Your task to perform on an android device: check data usage Image 0: 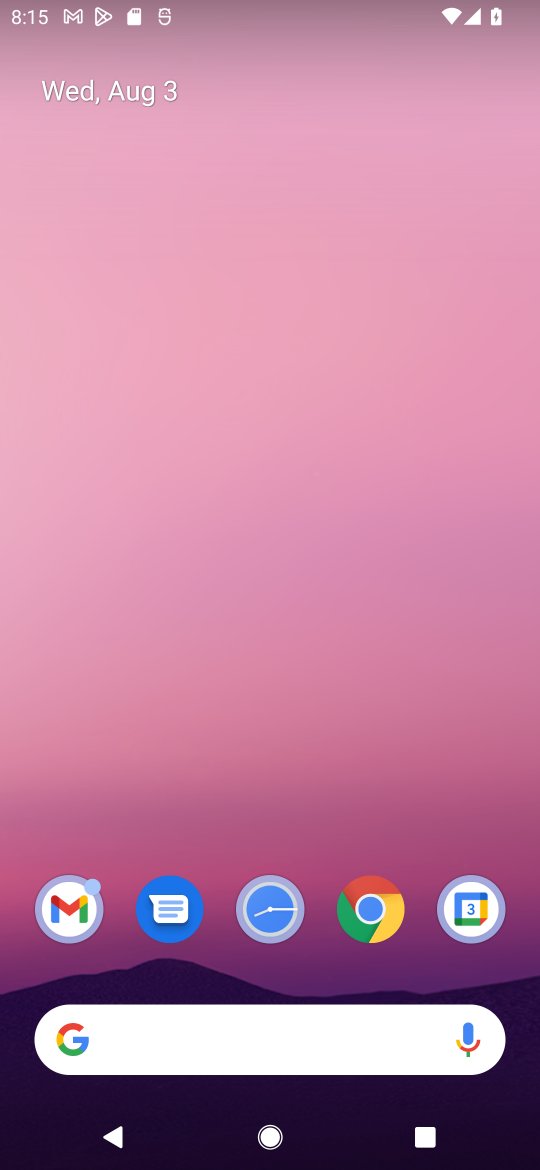
Step 0: press home button
Your task to perform on an android device: check data usage Image 1: 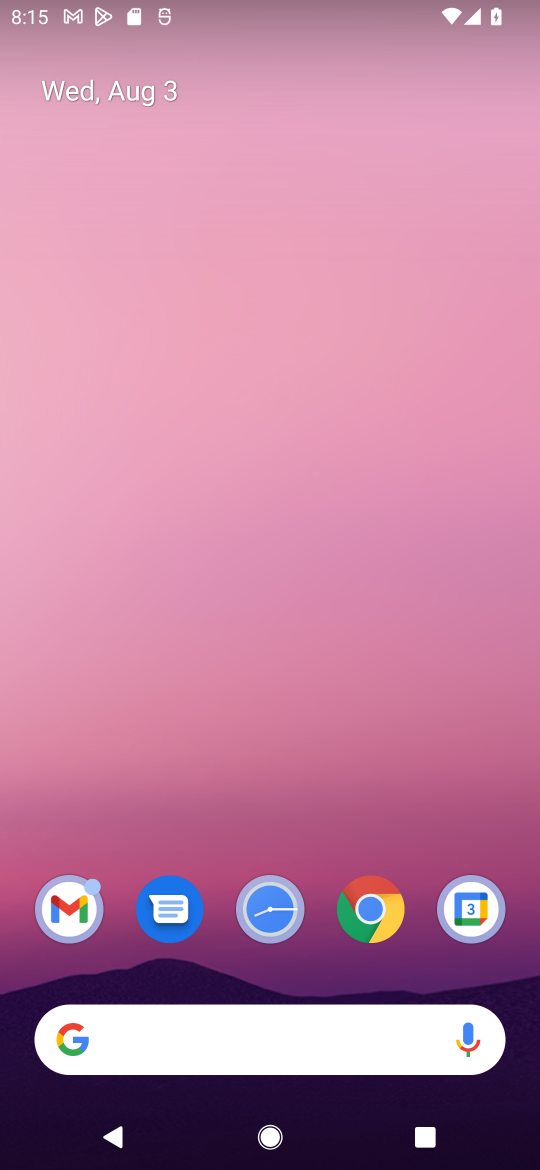
Step 1: drag from (334, 835) to (377, 275)
Your task to perform on an android device: check data usage Image 2: 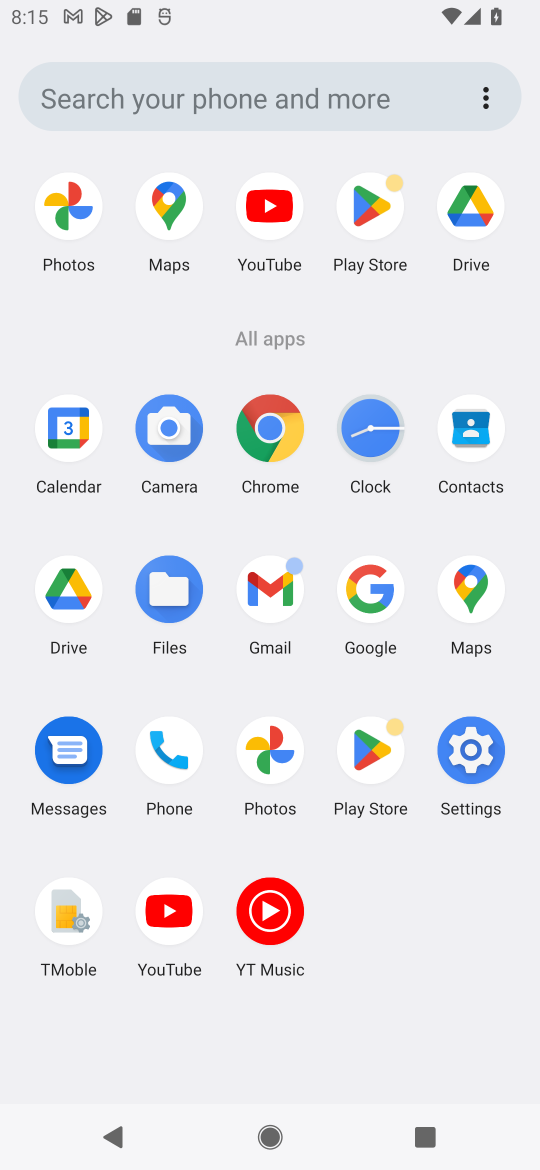
Step 2: click (477, 761)
Your task to perform on an android device: check data usage Image 3: 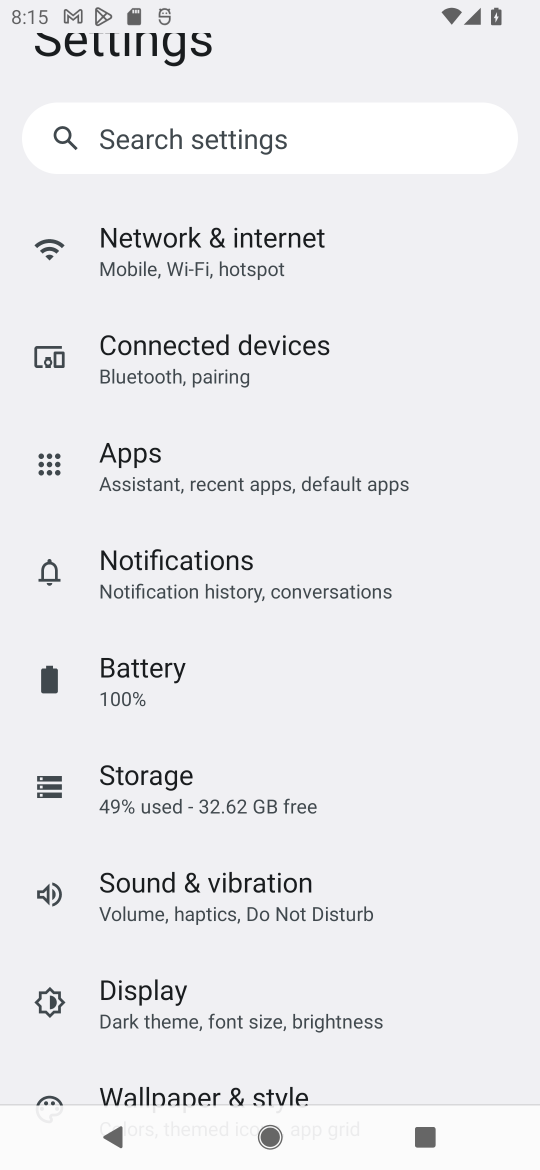
Step 3: drag from (445, 939) to (464, 815)
Your task to perform on an android device: check data usage Image 4: 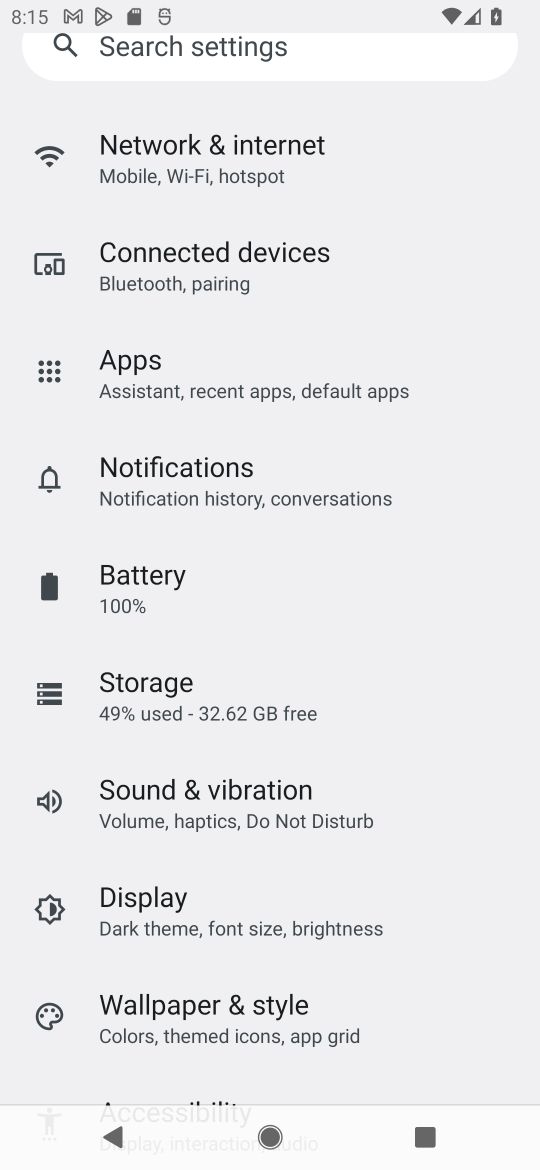
Step 4: drag from (475, 985) to (466, 838)
Your task to perform on an android device: check data usage Image 5: 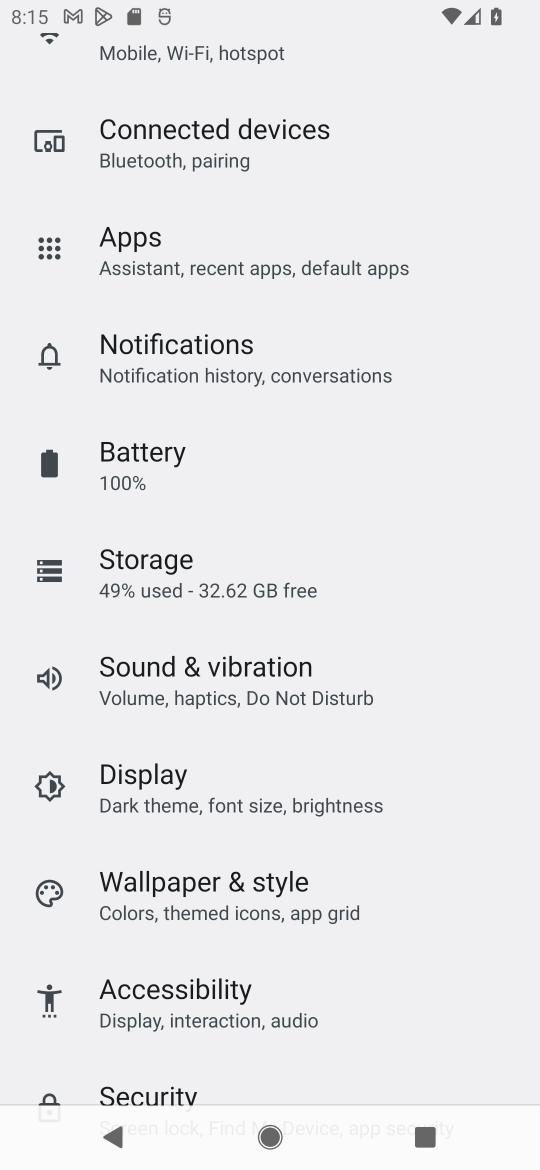
Step 5: drag from (460, 1014) to (460, 827)
Your task to perform on an android device: check data usage Image 6: 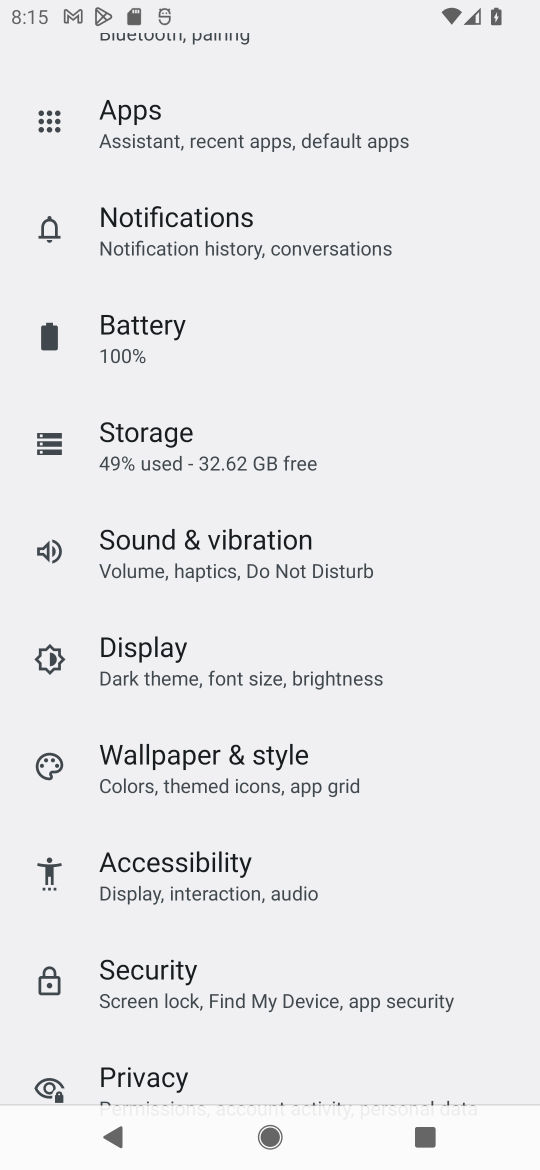
Step 6: drag from (476, 1059) to (473, 868)
Your task to perform on an android device: check data usage Image 7: 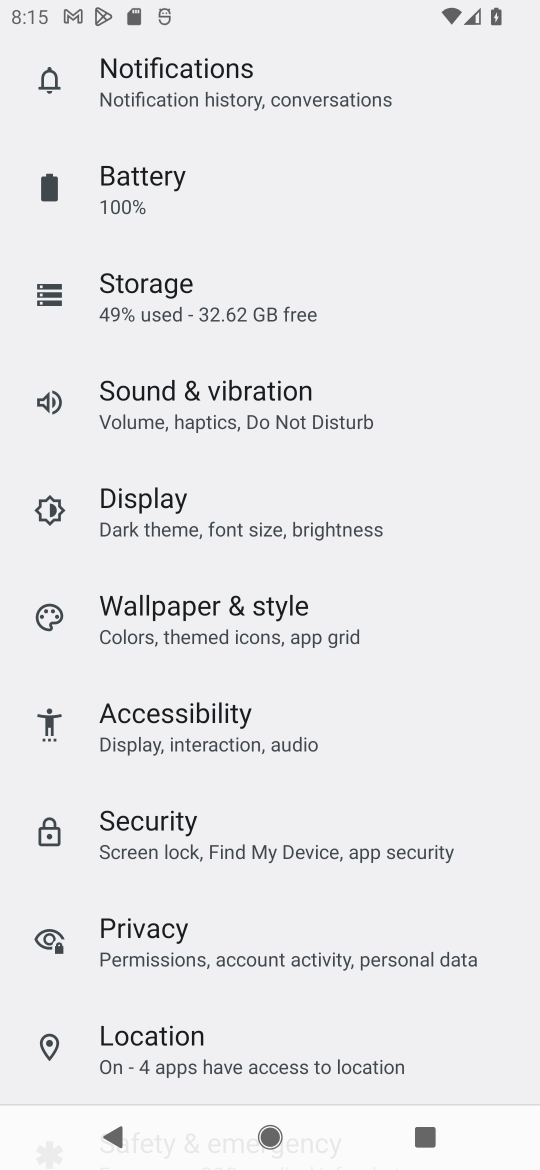
Step 7: drag from (443, 1003) to (458, 755)
Your task to perform on an android device: check data usage Image 8: 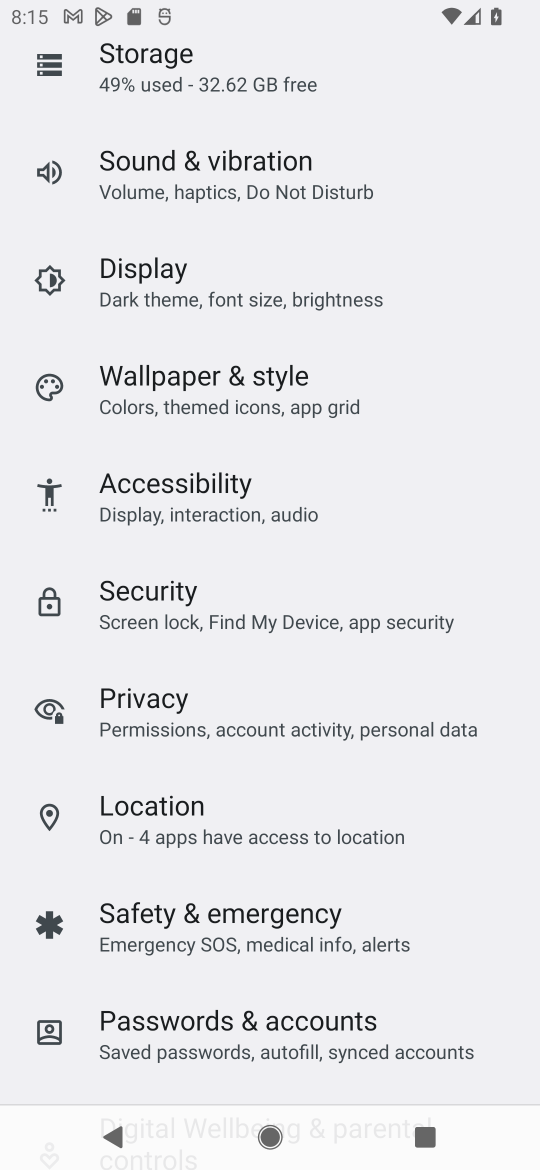
Step 8: drag from (472, 948) to (476, 724)
Your task to perform on an android device: check data usage Image 9: 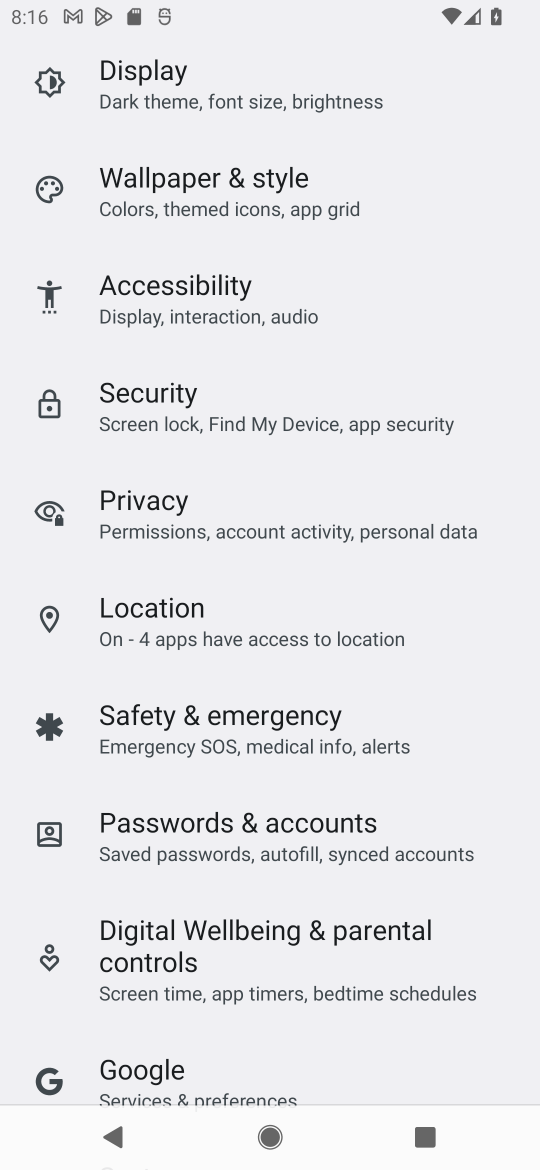
Step 9: drag from (485, 998) to (494, 770)
Your task to perform on an android device: check data usage Image 10: 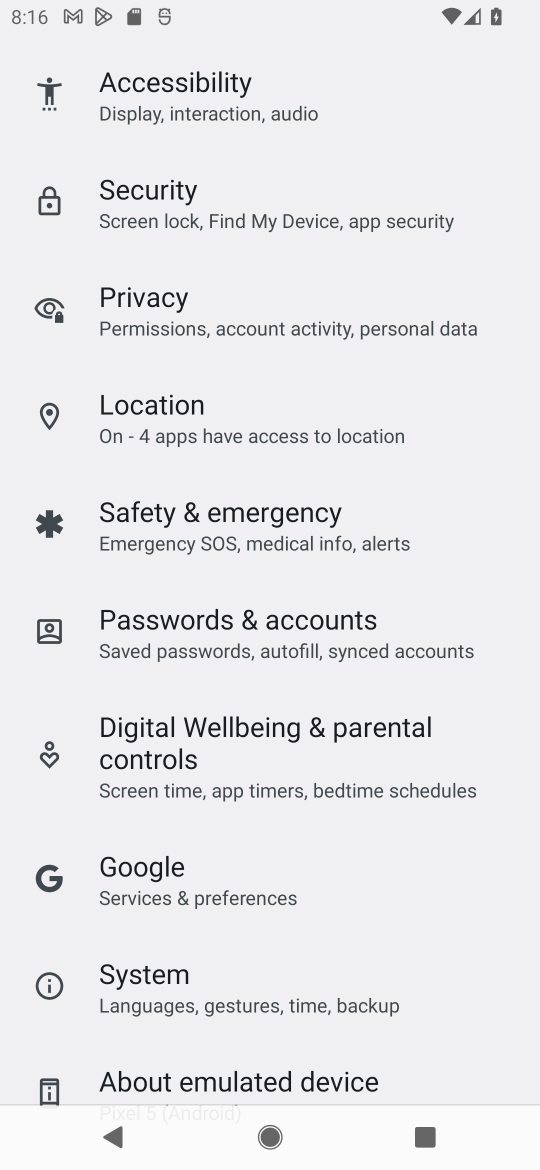
Step 10: drag from (475, 1006) to (475, 812)
Your task to perform on an android device: check data usage Image 11: 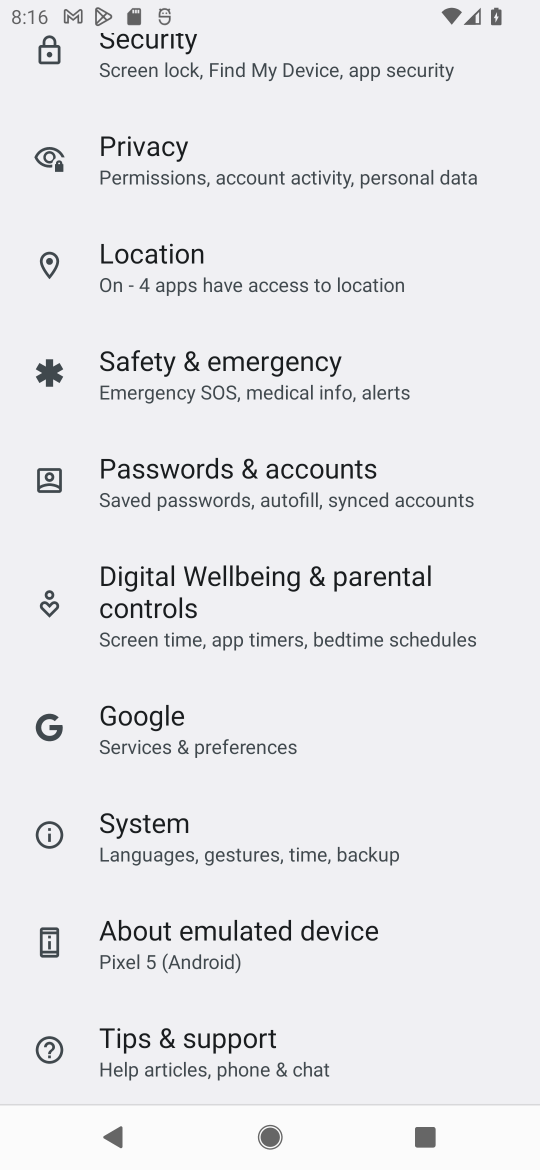
Step 11: drag from (458, 953) to (445, 759)
Your task to perform on an android device: check data usage Image 12: 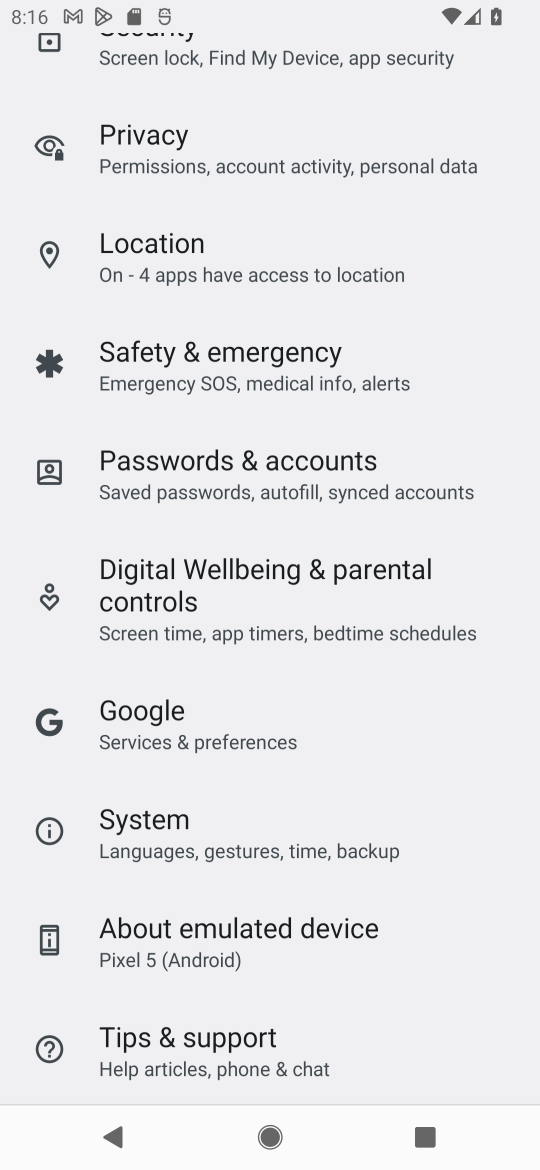
Step 12: drag from (445, 608) to (445, 830)
Your task to perform on an android device: check data usage Image 13: 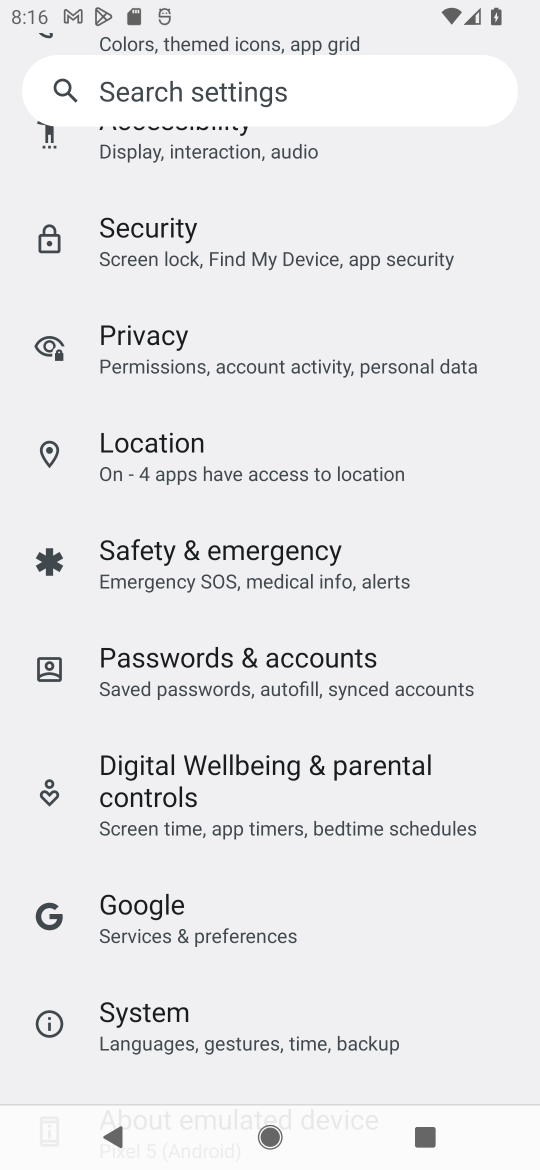
Step 13: drag from (490, 530) to (490, 748)
Your task to perform on an android device: check data usage Image 14: 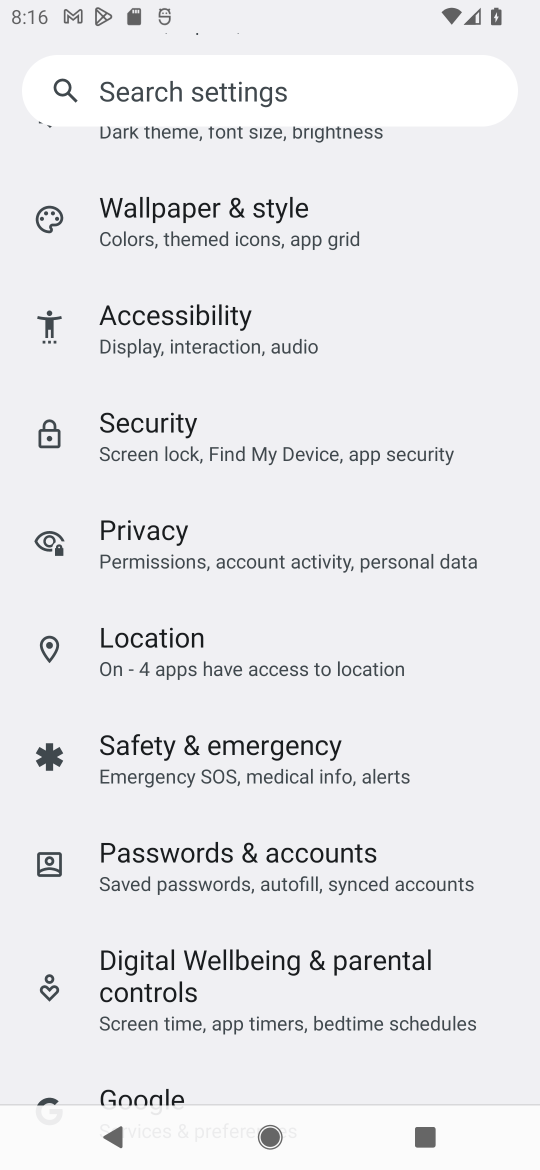
Step 14: drag from (483, 371) to (492, 671)
Your task to perform on an android device: check data usage Image 15: 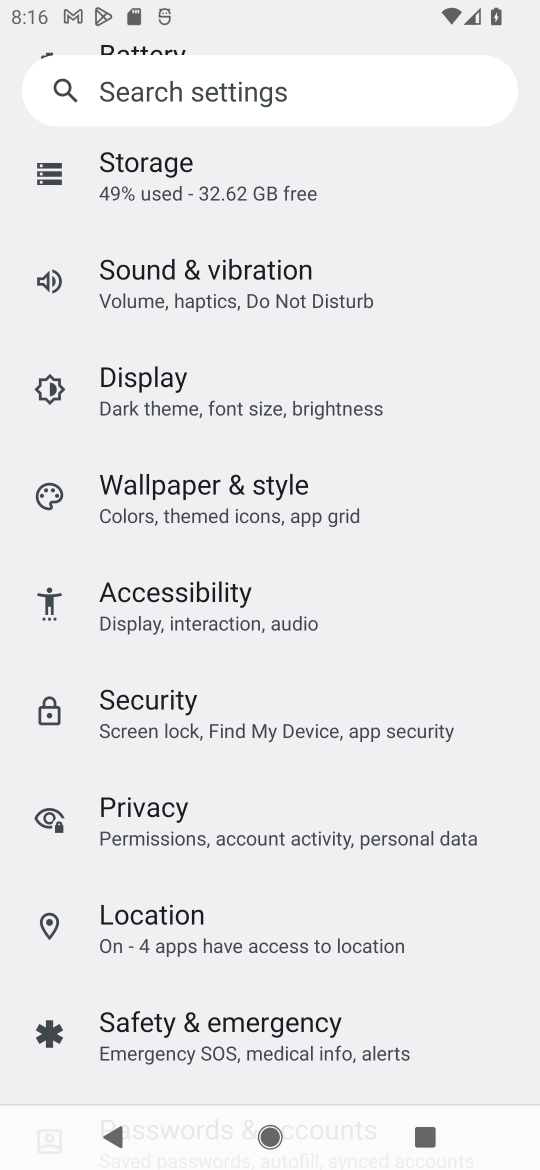
Step 15: drag from (459, 353) to (490, 711)
Your task to perform on an android device: check data usage Image 16: 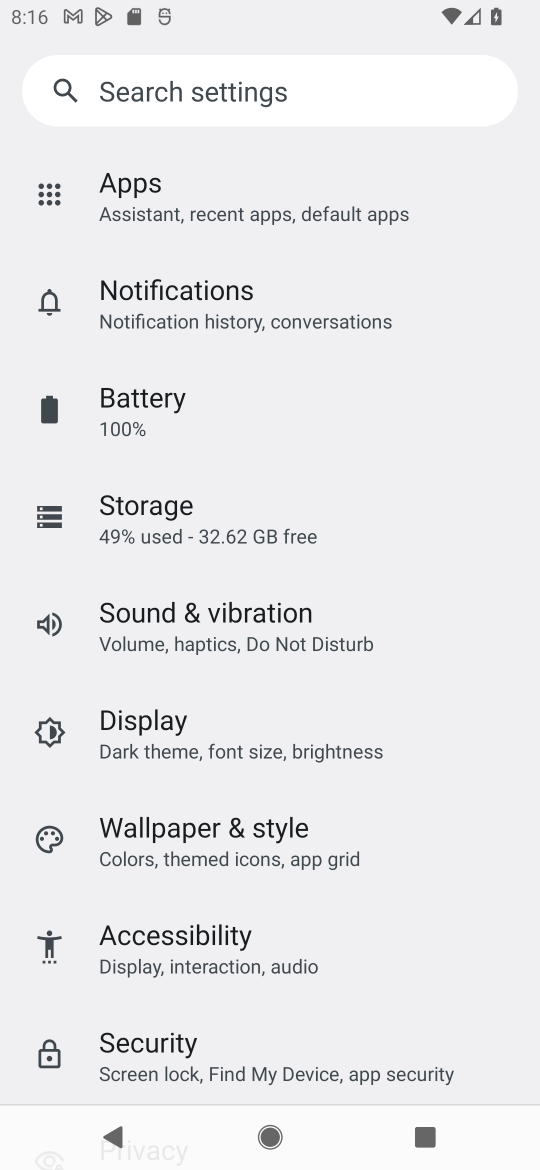
Step 16: drag from (452, 308) to (452, 648)
Your task to perform on an android device: check data usage Image 17: 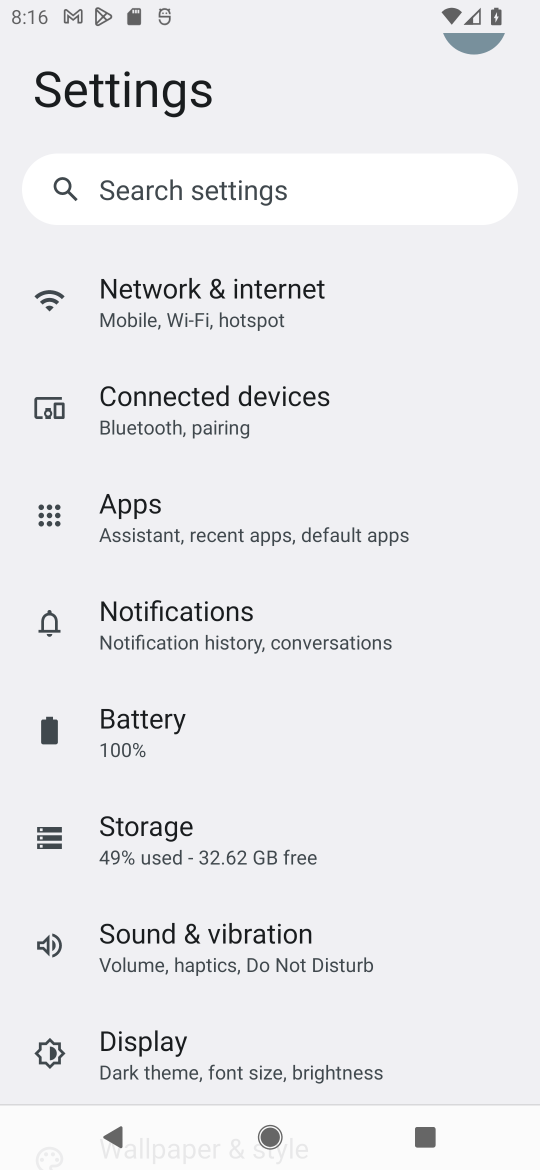
Step 17: click (264, 319)
Your task to perform on an android device: check data usage Image 18: 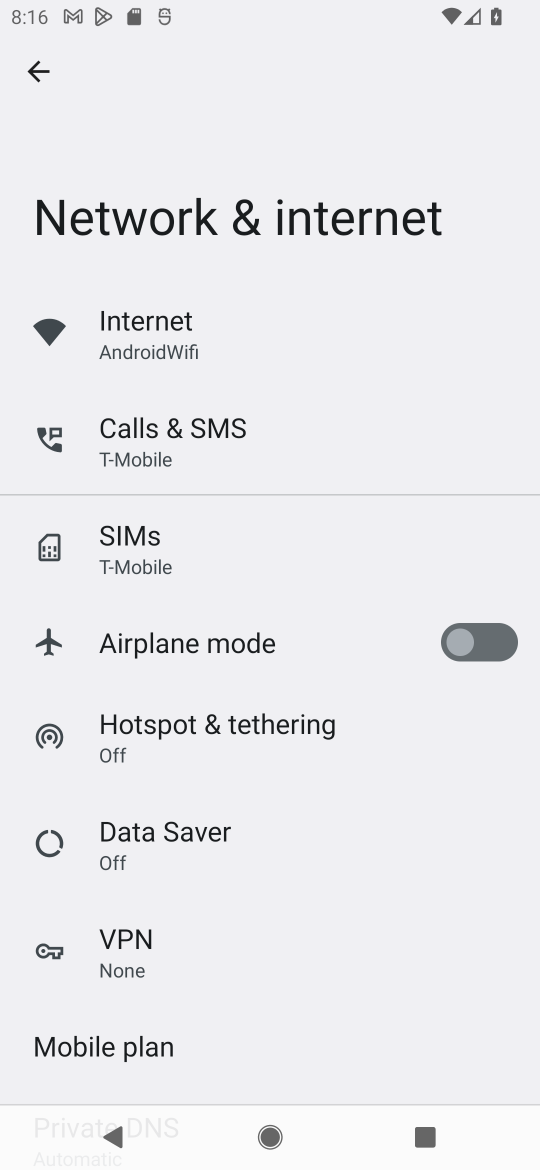
Step 18: drag from (251, 869) to (254, 614)
Your task to perform on an android device: check data usage Image 19: 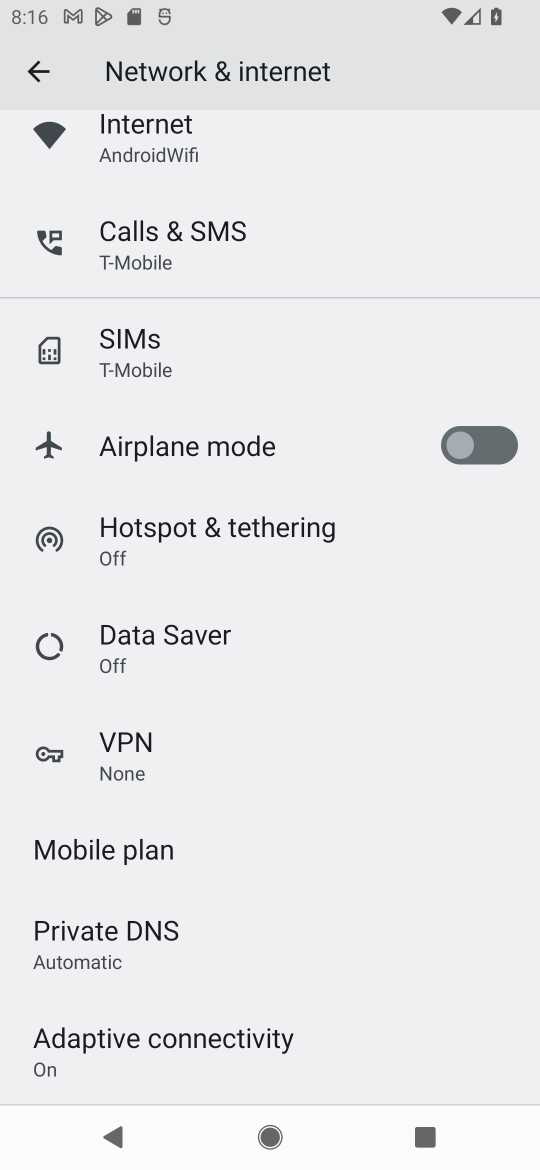
Step 19: drag from (332, 870) to (328, 635)
Your task to perform on an android device: check data usage Image 20: 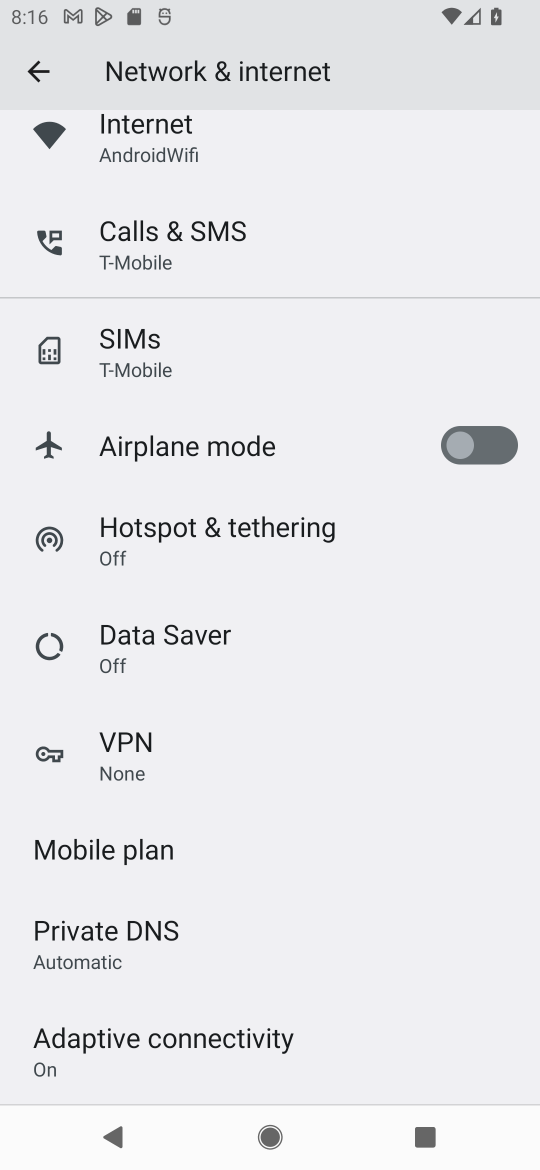
Step 20: drag from (347, 455) to (356, 769)
Your task to perform on an android device: check data usage Image 21: 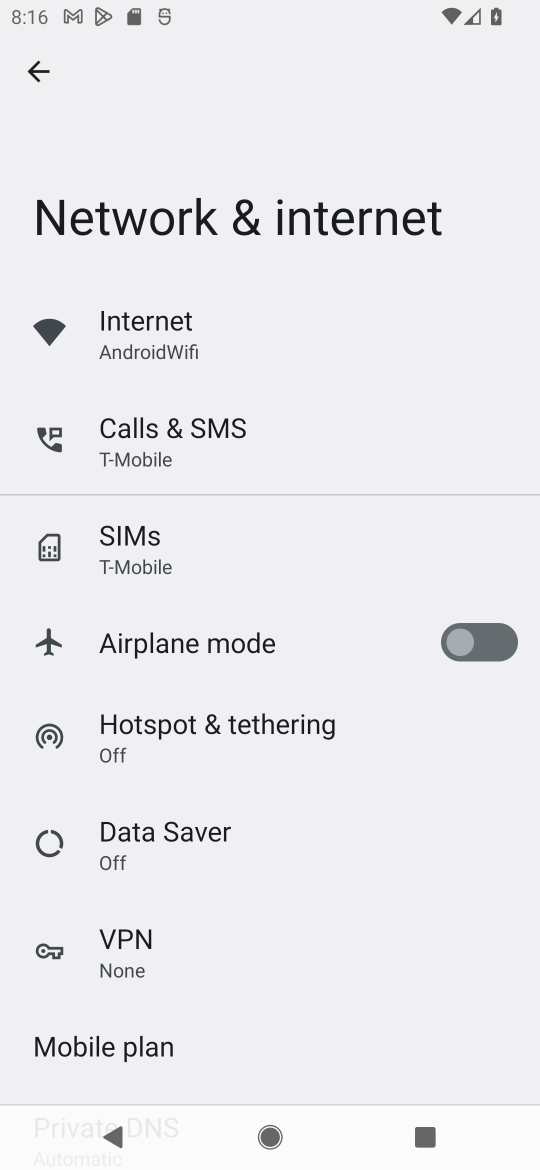
Step 21: click (193, 339)
Your task to perform on an android device: check data usage Image 22: 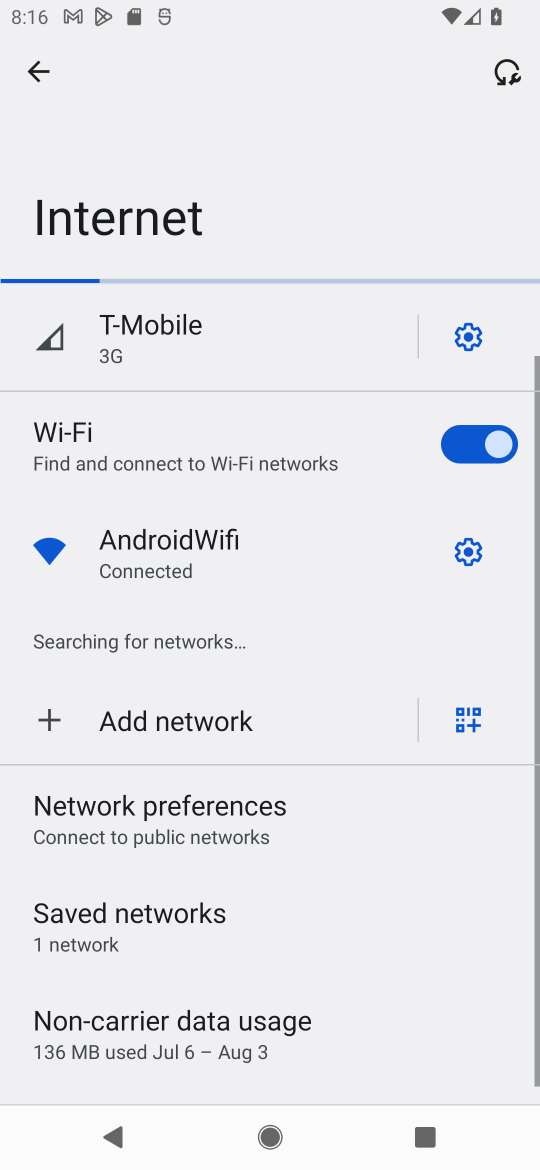
Step 22: drag from (333, 877) to (319, 638)
Your task to perform on an android device: check data usage Image 23: 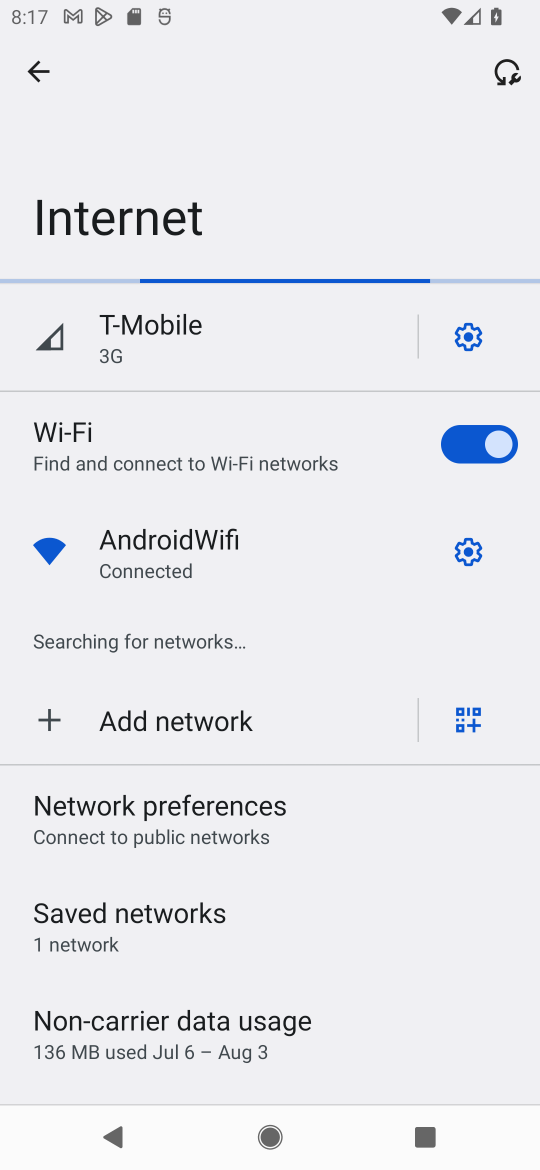
Step 23: click (239, 1038)
Your task to perform on an android device: check data usage Image 24: 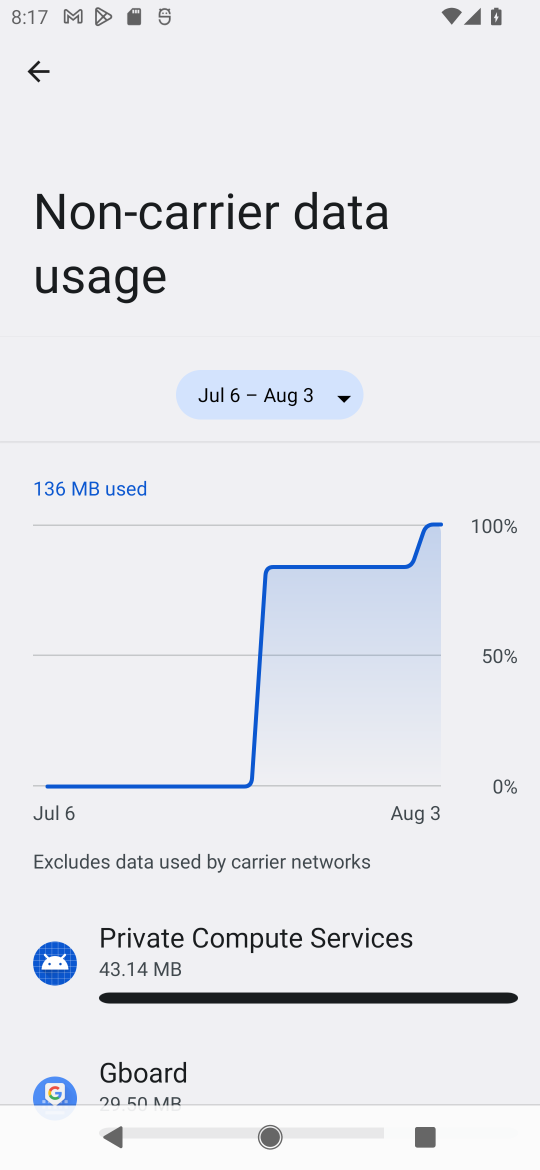
Step 24: task complete